Your task to perform on an android device: Open the calendar app, open the side menu, and click the "Day" option Image 0: 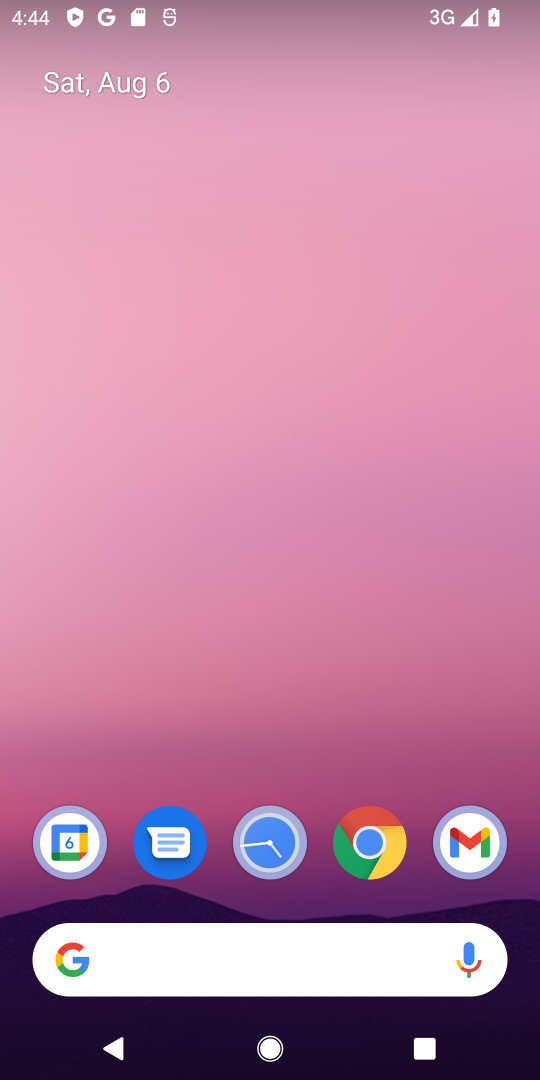
Step 0: click (65, 845)
Your task to perform on an android device: Open the calendar app, open the side menu, and click the "Day" option Image 1: 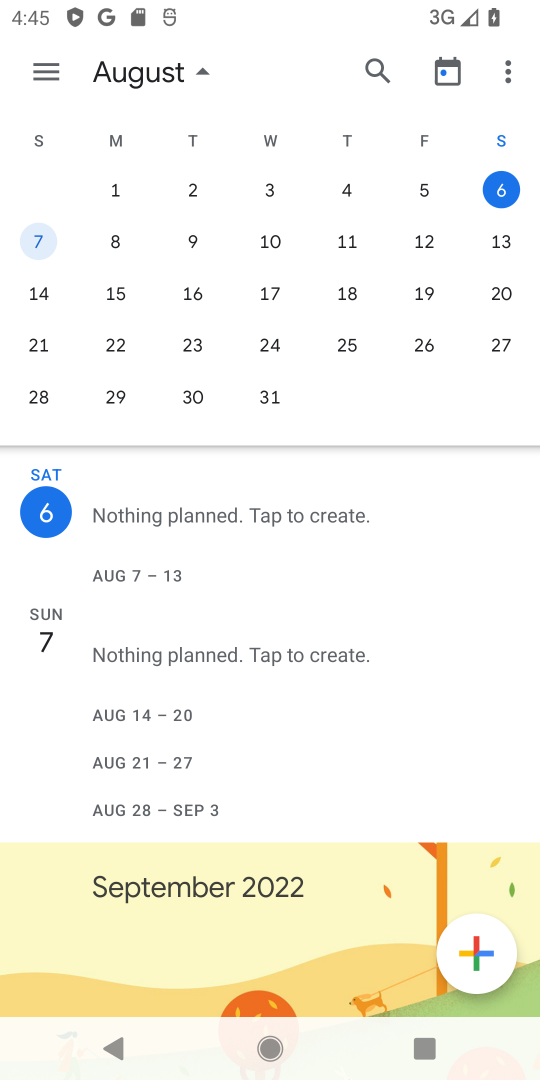
Step 1: click (50, 71)
Your task to perform on an android device: Open the calendar app, open the side menu, and click the "Day" option Image 2: 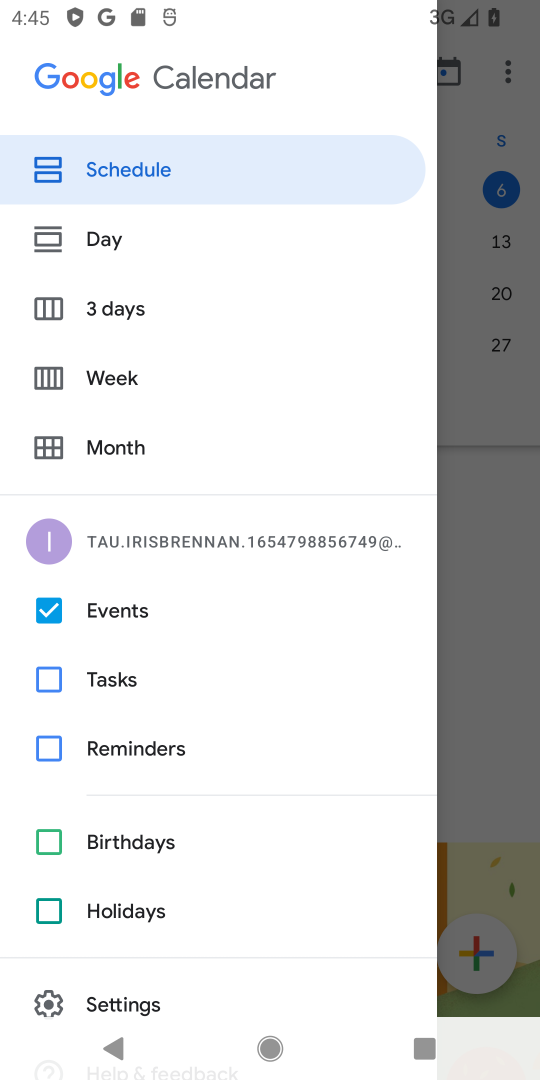
Step 2: click (98, 231)
Your task to perform on an android device: Open the calendar app, open the side menu, and click the "Day" option Image 3: 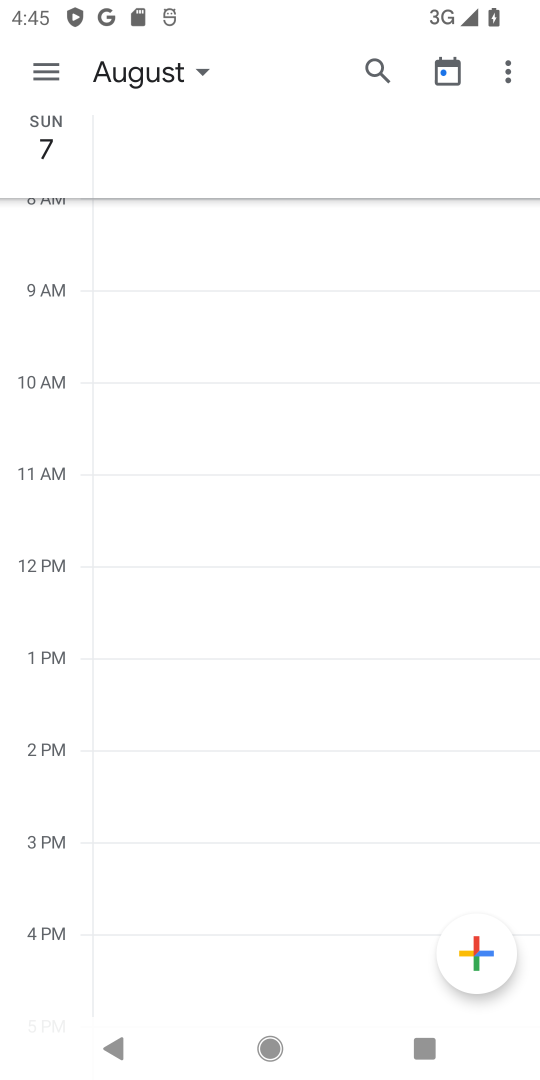
Step 3: click (28, 66)
Your task to perform on an android device: Open the calendar app, open the side menu, and click the "Day" option Image 4: 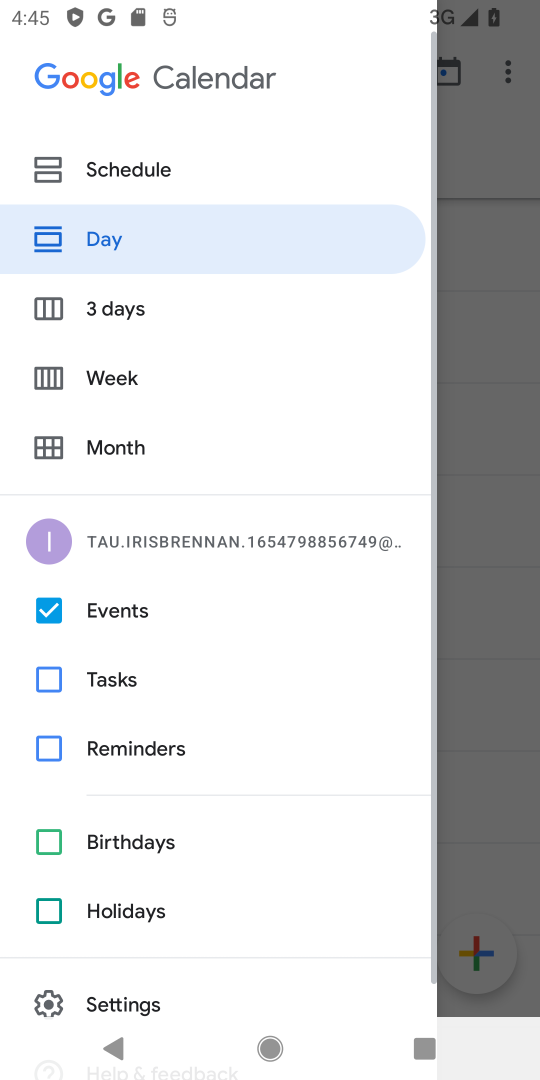
Step 4: click (104, 261)
Your task to perform on an android device: Open the calendar app, open the side menu, and click the "Day" option Image 5: 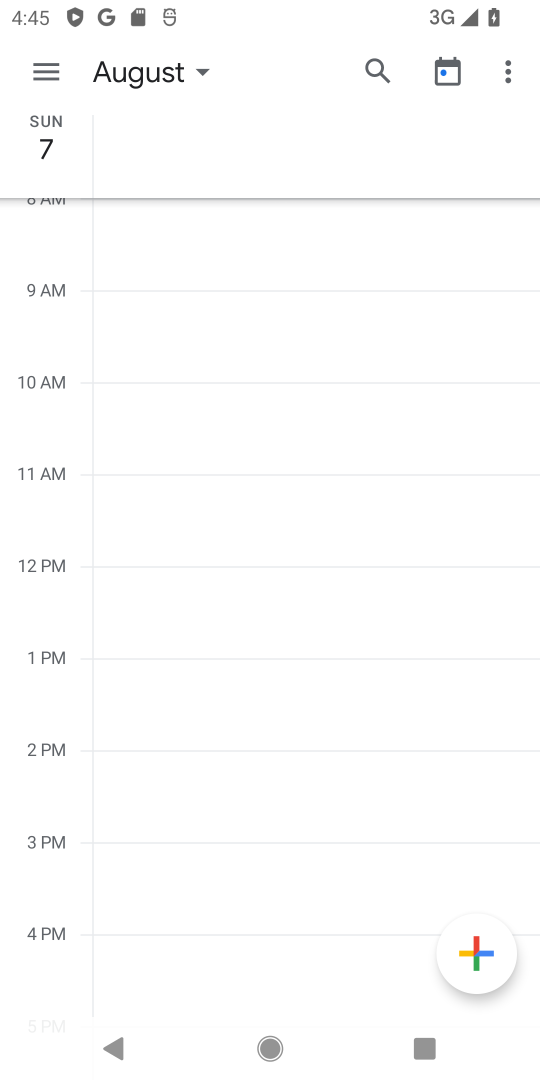
Step 5: task complete